Your task to perform on an android device: Search for flights from NYC to San Francisco Image 0: 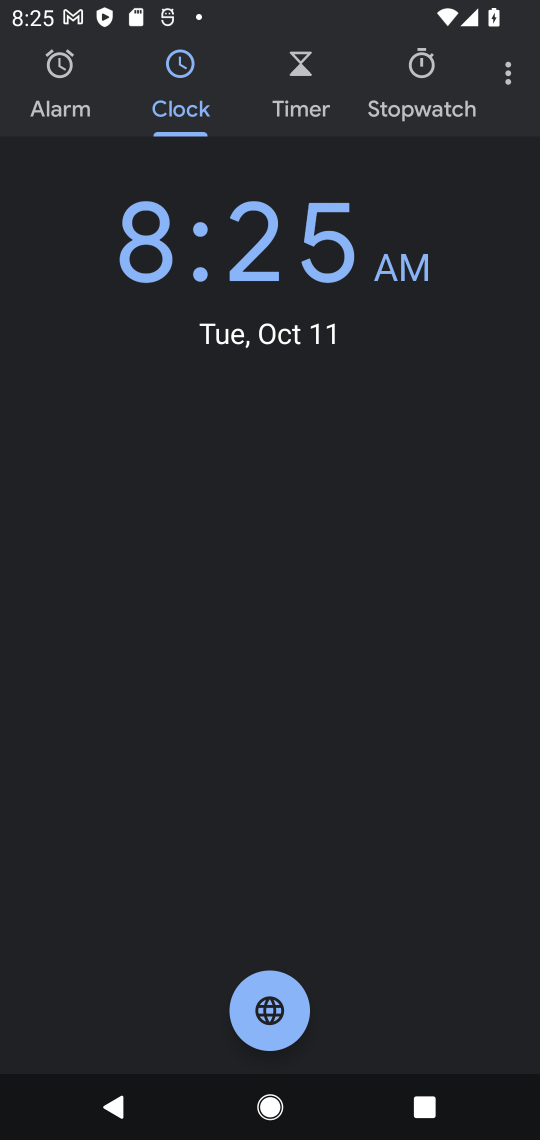
Step 0: press home button
Your task to perform on an android device: Search for flights from NYC to San Francisco Image 1: 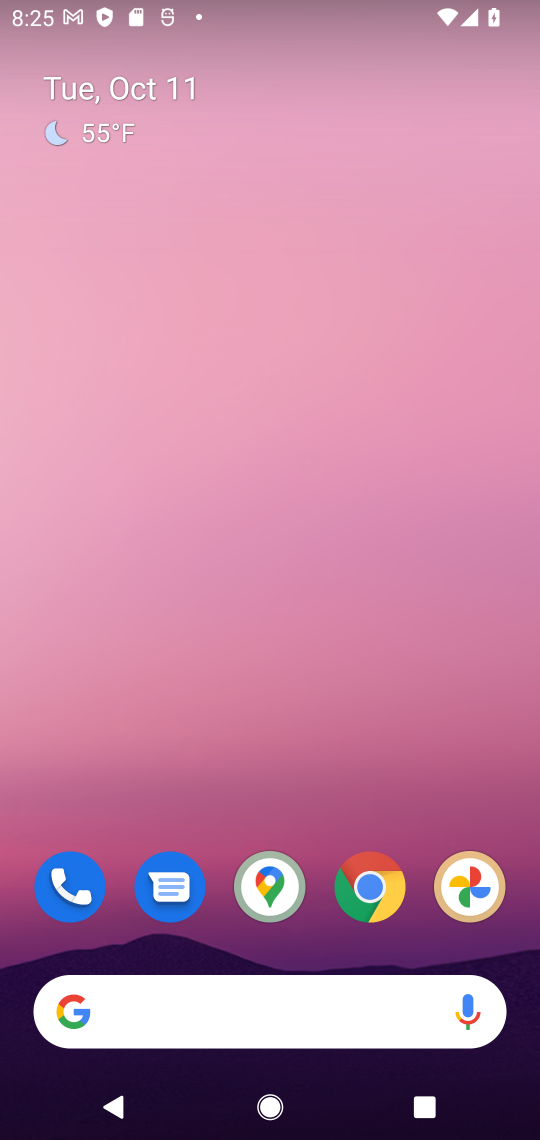
Step 1: click (374, 864)
Your task to perform on an android device: Search for flights from NYC to San Francisco Image 2: 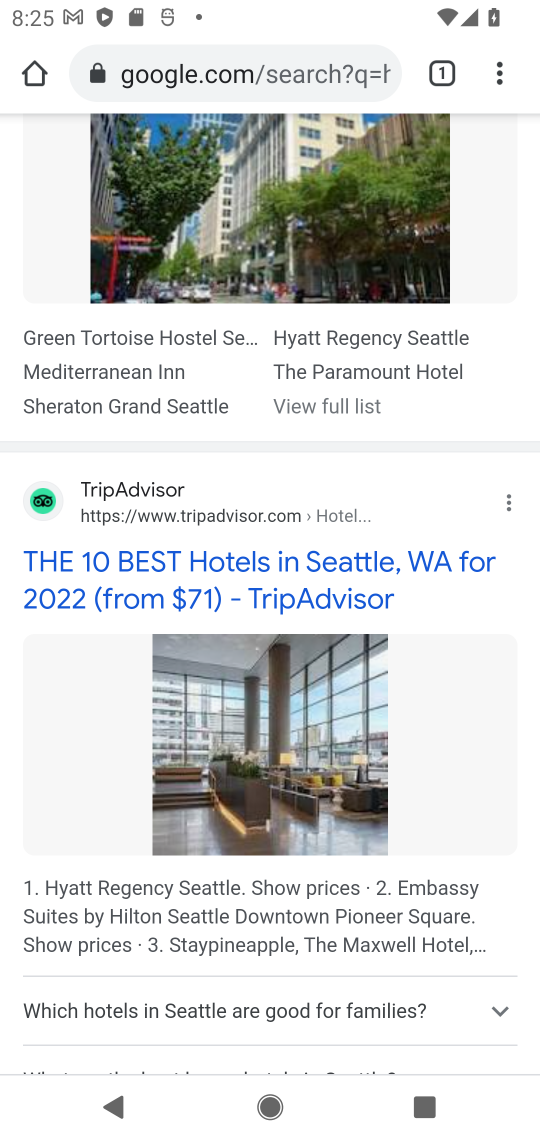
Step 2: click (306, 65)
Your task to perform on an android device: Search for flights from NYC to San Francisco Image 3: 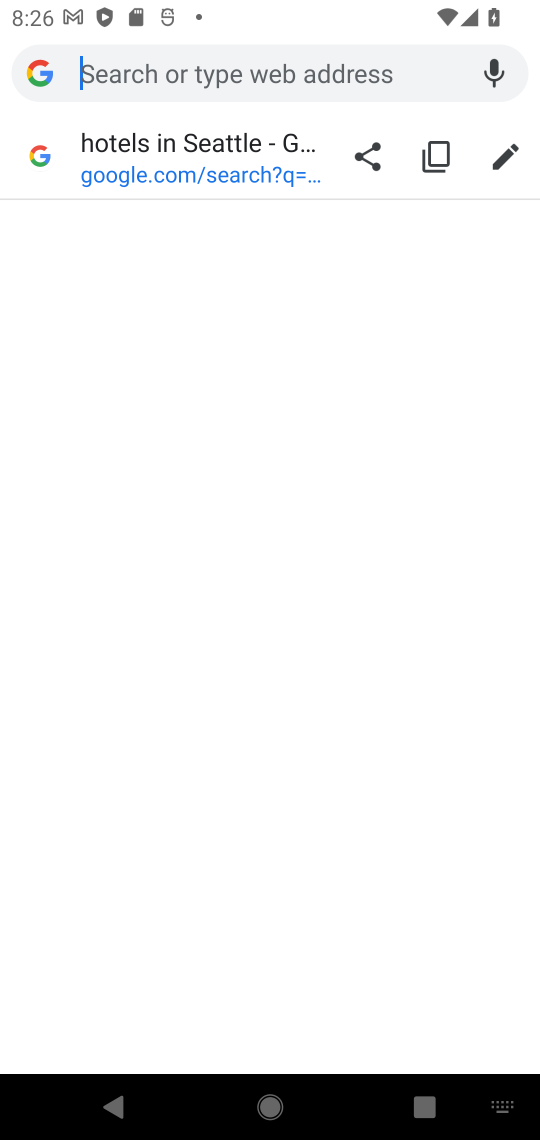
Step 3: type "NYC to San Francisco flights"
Your task to perform on an android device: Search for flights from NYC to San Francisco Image 4: 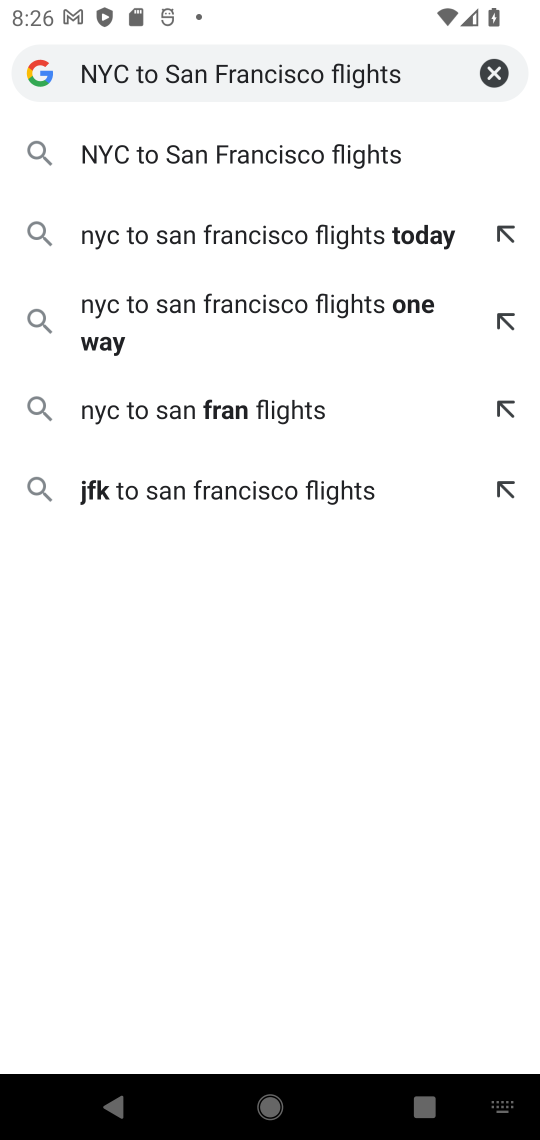
Step 4: click (402, 162)
Your task to perform on an android device: Search for flights from NYC to San Francisco Image 5: 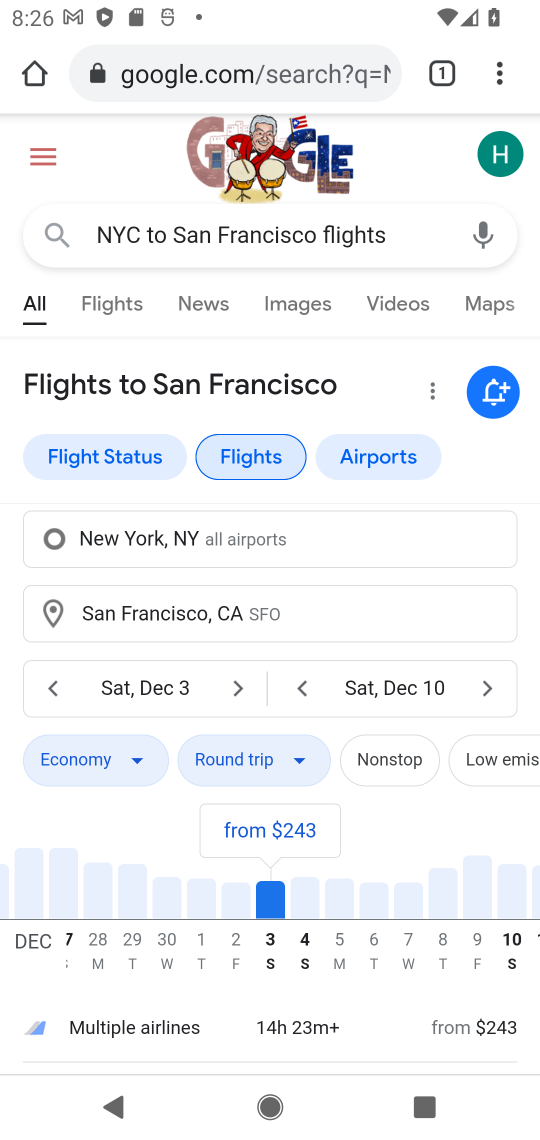
Step 5: task complete